Your task to perform on an android device: turn off priority inbox in the gmail app Image 0: 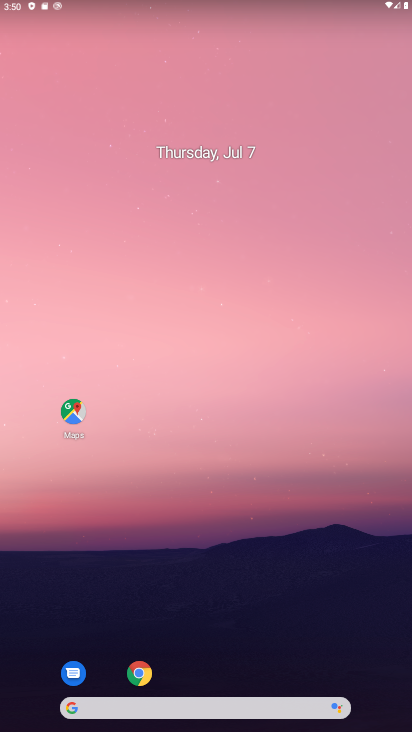
Step 0: drag from (229, 667) to (268, 52)
Your task to perform on an android device: turn off priority inbox in the gmail app Image 1: 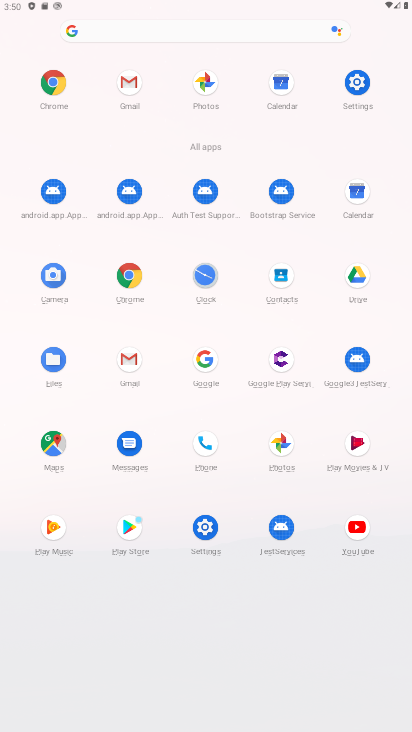
Step 1: click (134, 80)
Your task to perform on an android device: turn off priority inbox in the gmail app Image 2: 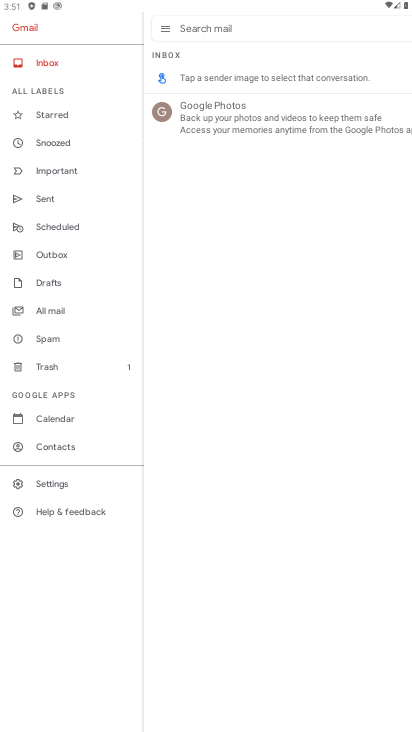
Step 2: click (63, 480)
Your task to perform on an android device: turn off priority inbox in the gmail app Image 3: 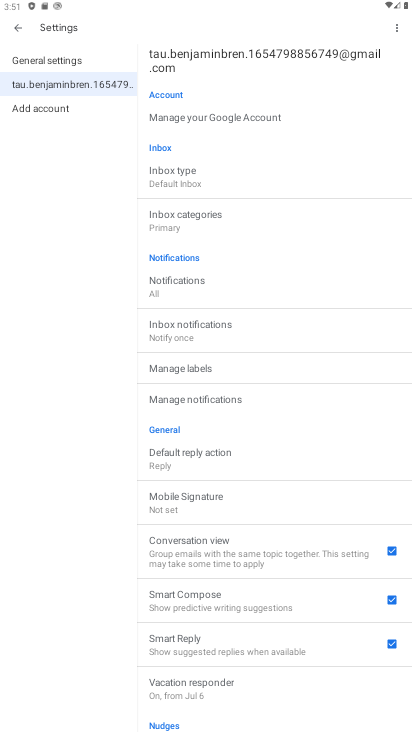
Step 3: click (190, 178)
Your task to perform on an android device: turn off priority inbox in the gmail app Image 4: 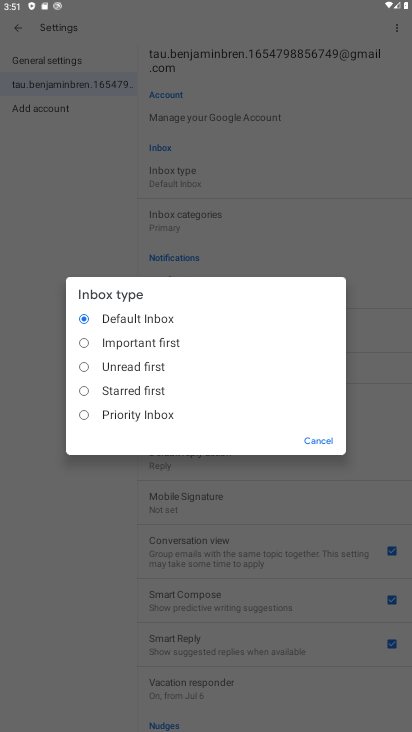
Step 4: click (85, 382)
Your task to perform on an android device: turn off priority inbox in the gmail app Image 5: 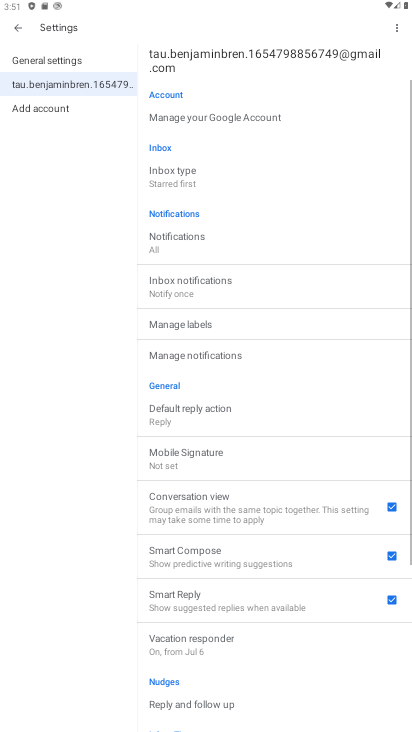
Step 5: task complete